Your task to perform on an android device: delete browsing data in the chrome app Image 0: 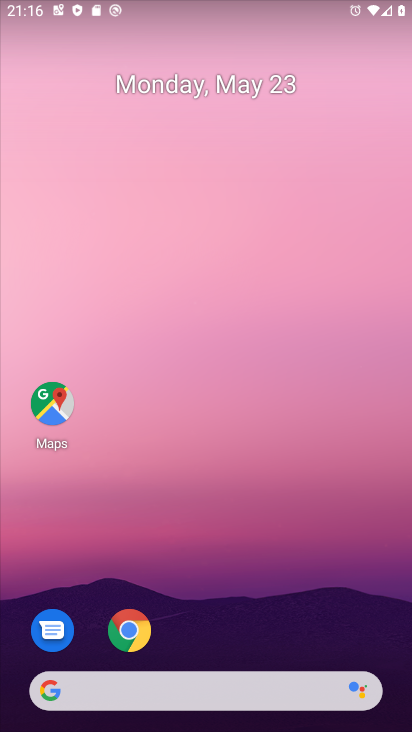
Step 0: click (140, 631)
Your task to perform on an android device: delete browsing data in the chrome app Image 1: 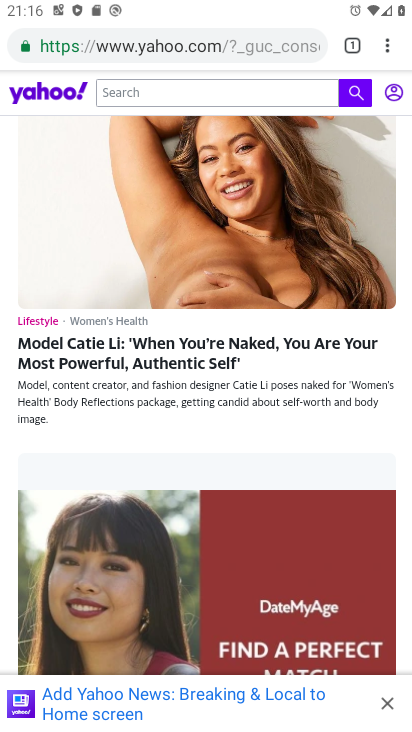
Step 1: click (353, 43)
Your task to perform on an android device: delete browsing data in the chrome app Image 2: 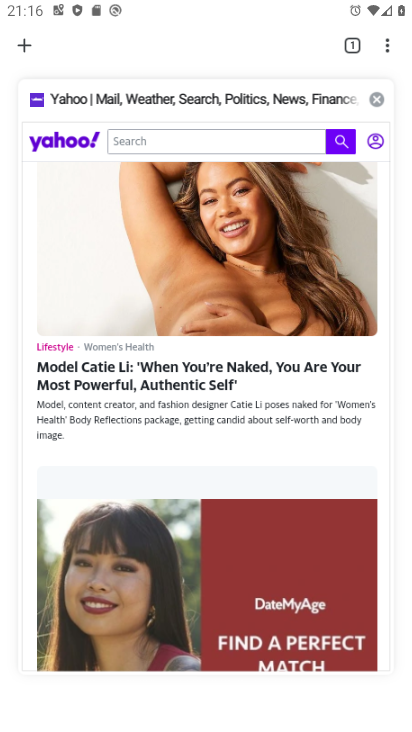
Step 2: click (378, 93)
Your task to perform on an android device: delete browsing data in the chrome app Image 3: 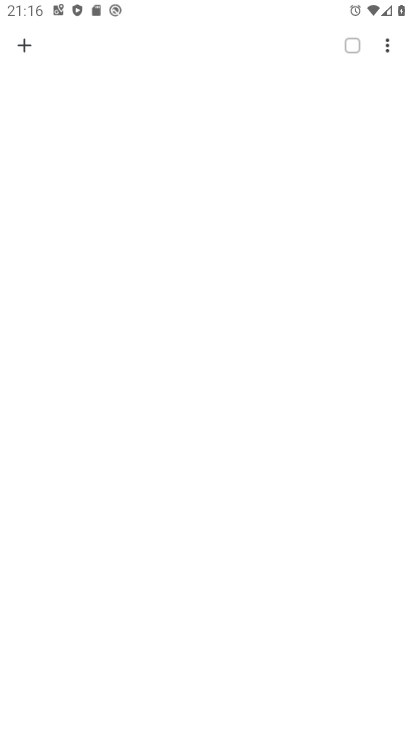
Step 3: click (21, 45)
Your task to perform on an android device: delete browsing data in the chrome app Image 4: 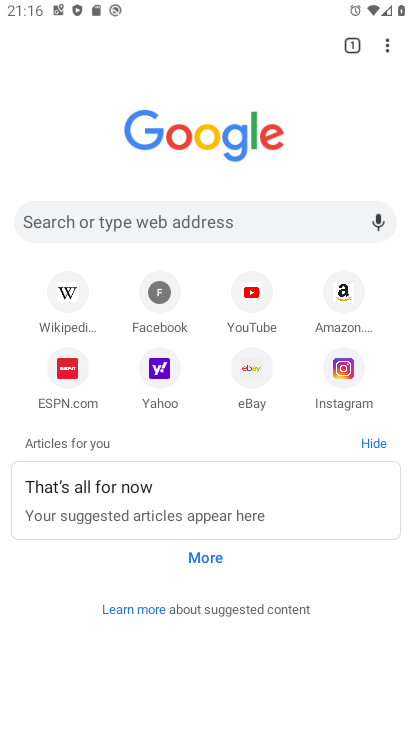
Step 4: click (386, 42)
Your task to perform on an android device: delete browsing data in the chrome app Image 5: 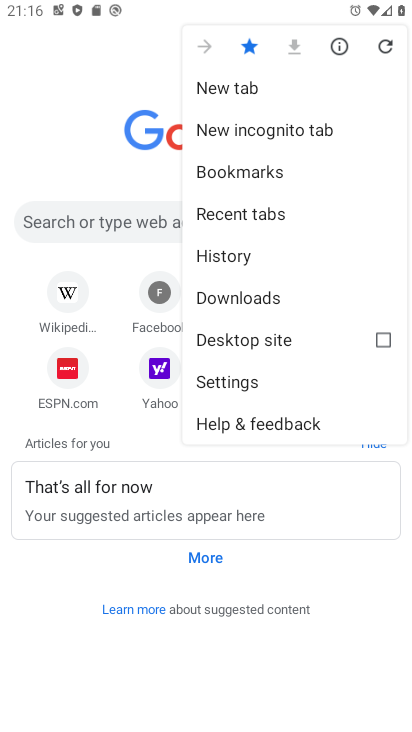
Step 5: click (225, 260)
Your task to perform on an android device: delete browsing data in the chrome app Image 6: 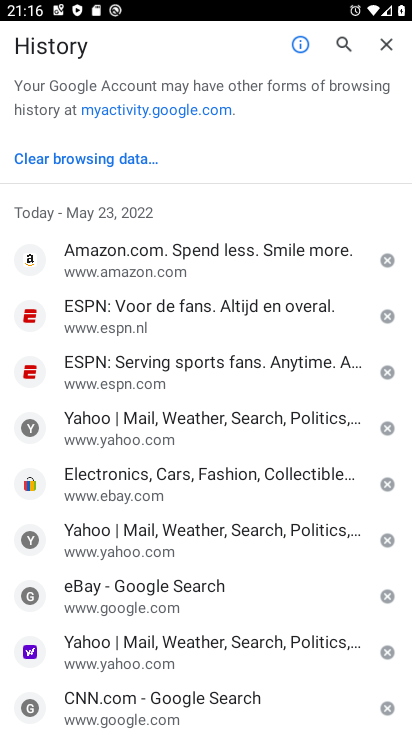
Step 6: click (108, 153)
Your task to perform on an android device: delete browsing data in the chrome app Image 7: 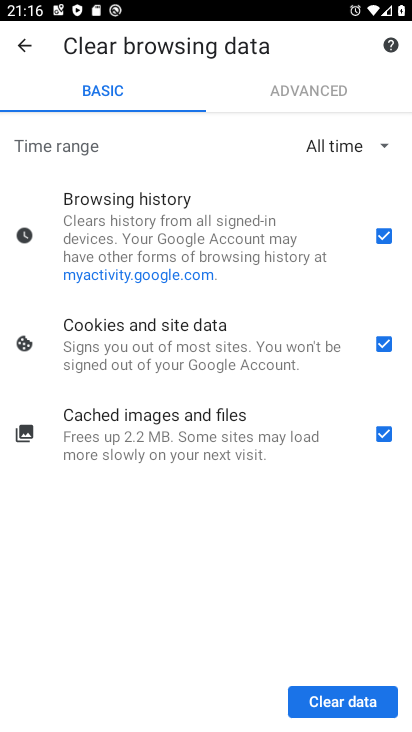
Step 7: click (321, 702)
Your task to perform on an android device: delete browsing data in the chrome app Image 8: 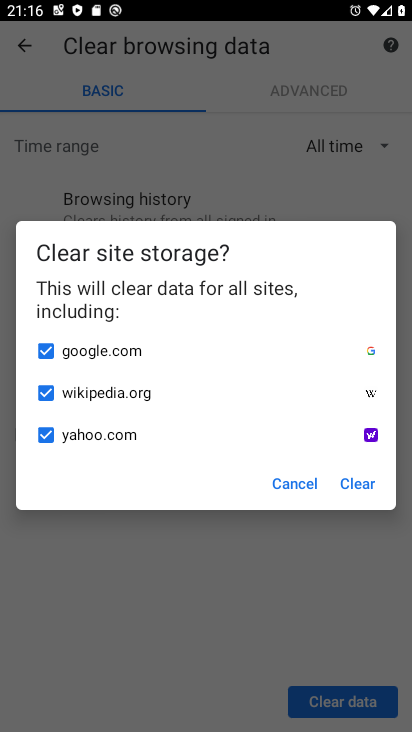
Step 8: click (351, 483)
Your task to perform on an android device: delete browsing data in the chrome app Image 9: 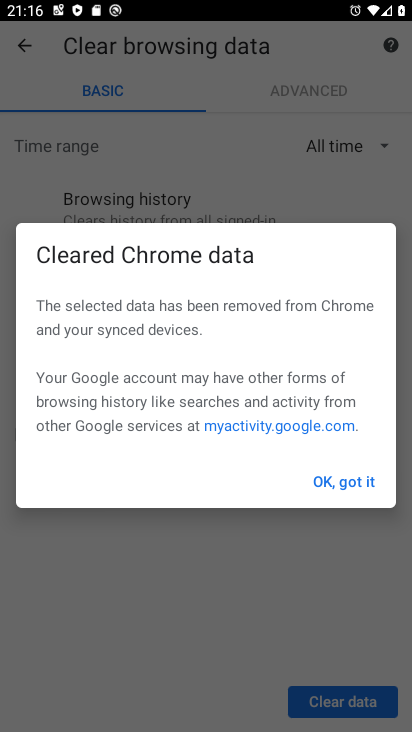
Step 9: click (347, 472)
Your task to perform on an android device: delete browsing data in the chrome app Image 10: 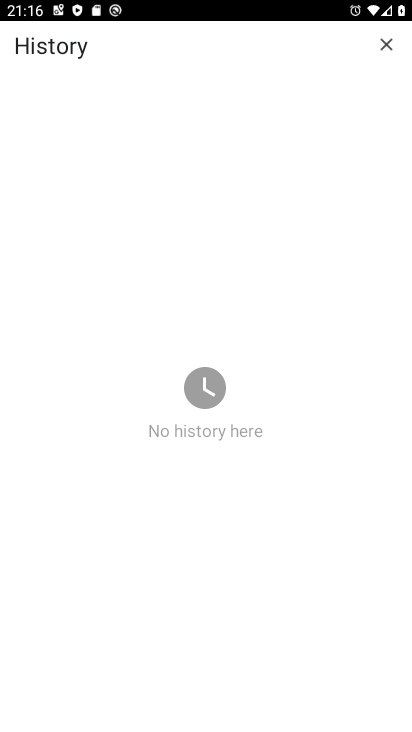
Step 10: task complete